Your task to perform on an android device: install app "Booking.com: Hotels and more" Image 0: 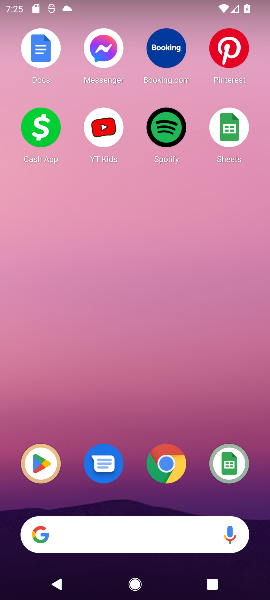
Step 0: drag from (129, 498) to (231, 0)
Your task to perform on an android device: install app "Booking.com: Hotels and more" Image 1: 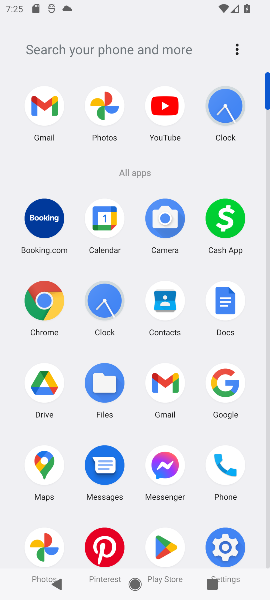
Step 1: click (132, 44)
Your task to perform on an android device: install app "Booking.com: Hotels and more" Image 2: 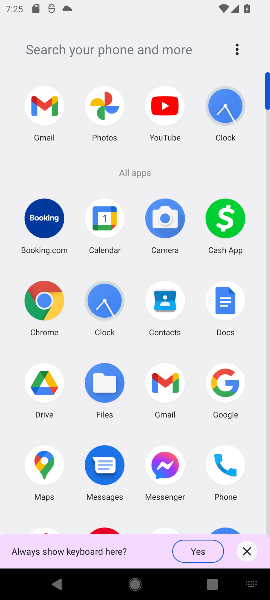
Step 2: press home button
Your task to perform on an android device: install app "Booking.com: Hotels and more" Image 3: 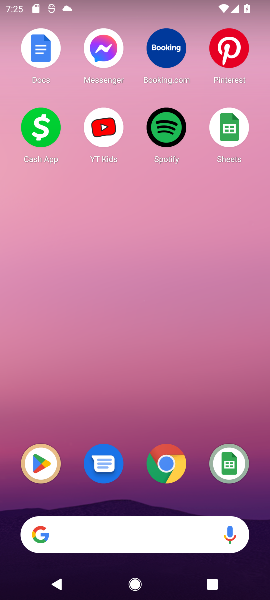
Step 3: click (178, 61)
Your task to perform on an android device: install app "Booking.com: Hotels and more" Image 4: 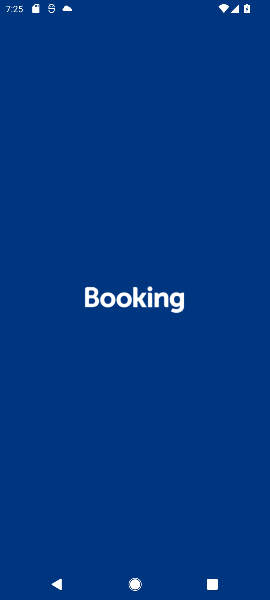
Step 4: task complete